Your task to perform on an android device: Open Google Maps Image 0: 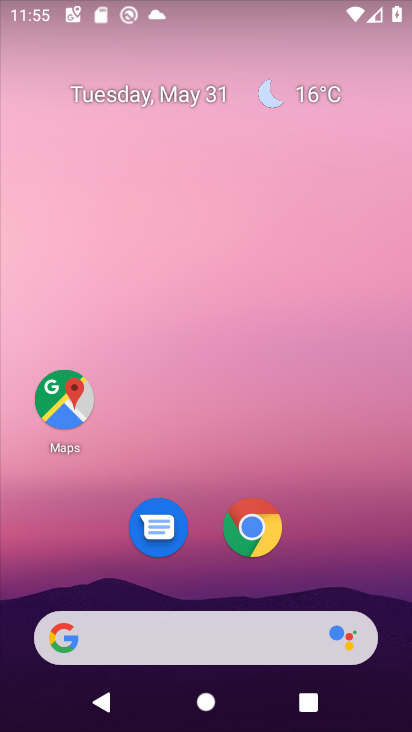
Step 0: click (64, 396)
Your task to perform on an android device: Open Google Maps Image 1: 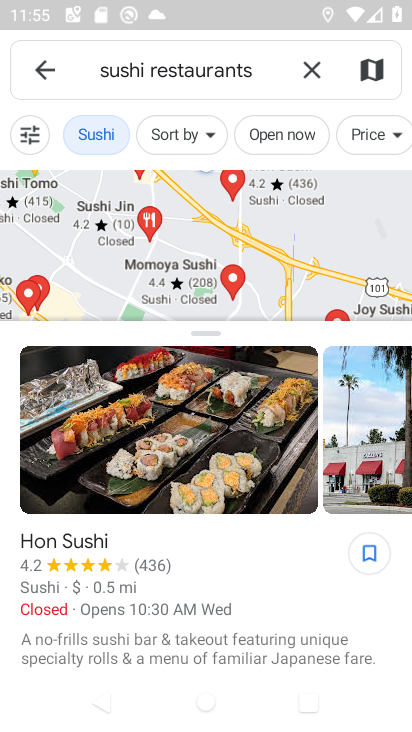
Step 1: task complete